Your task to perform on an android device: What's the weather? Image 0: 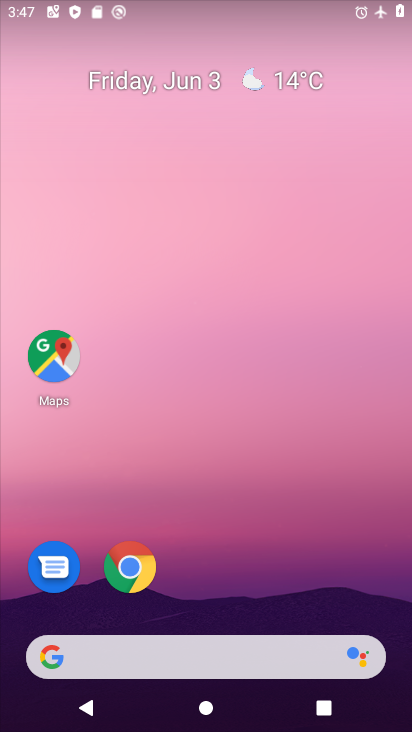
Step 0: drag from (285, 682) to (277, 247)
Your task to perform on an android device: What's the weather? Image 1: 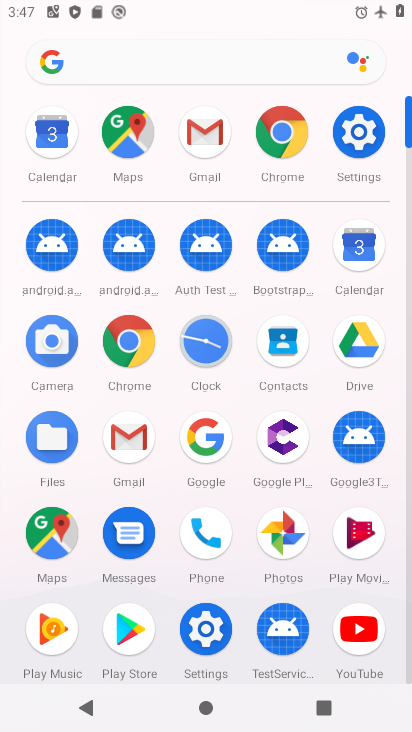
Step 1: click (162, 69)
Your task to perform on an android device: What's the weather? Image 2: 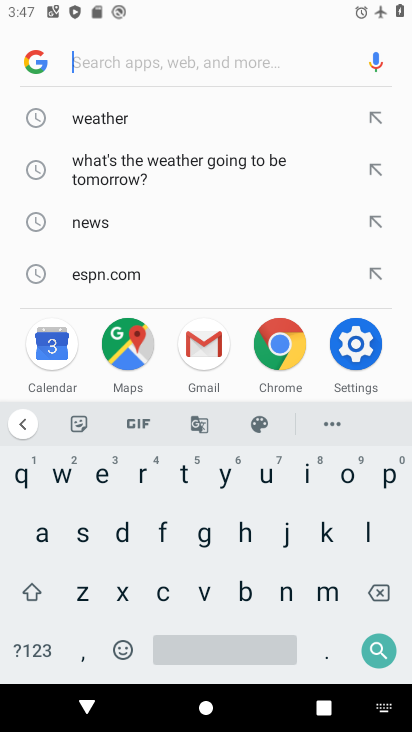
Step 2: click (132, 126)
Your task to perform on an android device: What's the weather? Image 3: 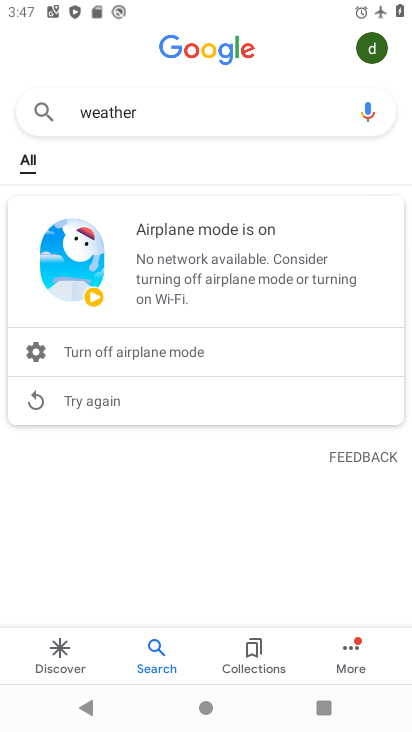
Step 3: press home button
Your task to perform on an android device: What's the weather? Image 4: 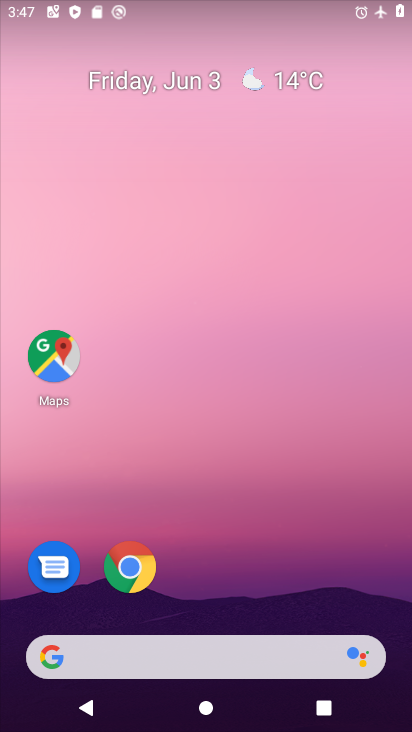
Step 4: drag from (252, 671) to (322, 106)
Your task to perform on an android device: What's the weather? Image 5: 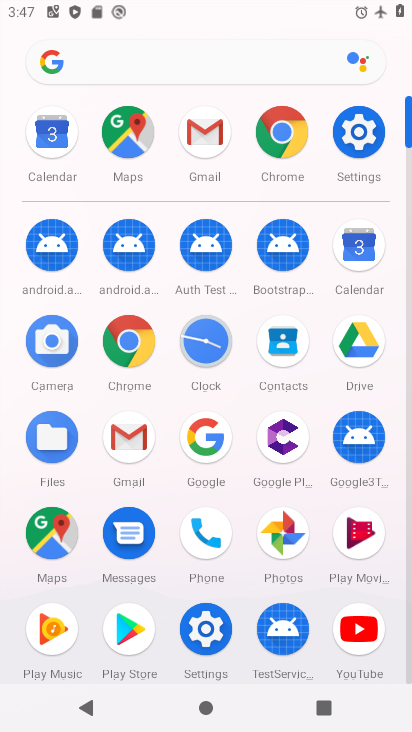
Step 5: click (358, 135)
Your task to perform on an android device: What's the weather? Image 6: 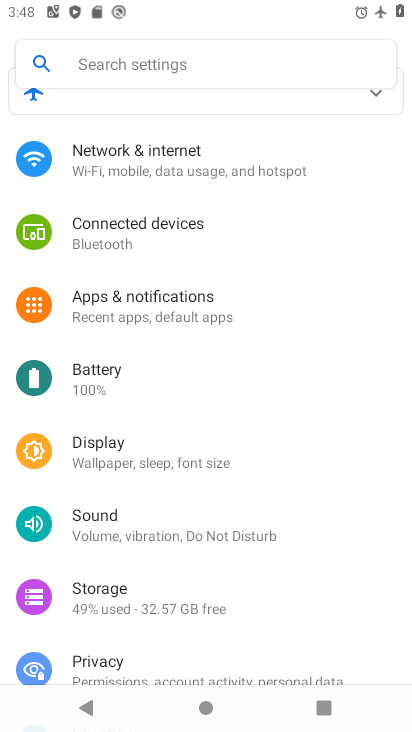
Step 6: click (378, 94)
Your task to perform on an android device: What's the weather? Image 7: 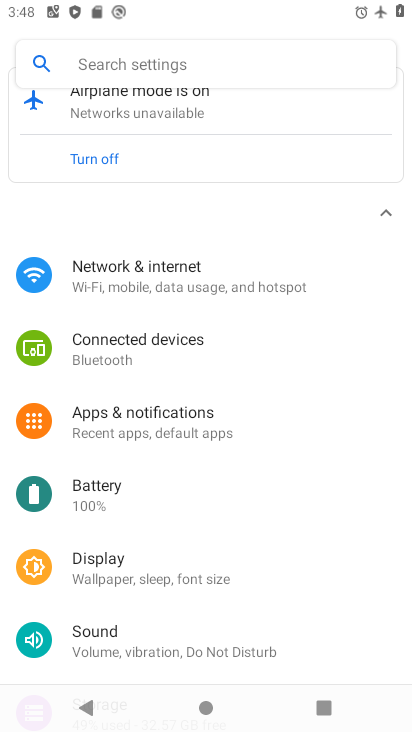
Step 7: click (78, 160)
Your task to perform on an android device: What's the weather? Image 8: 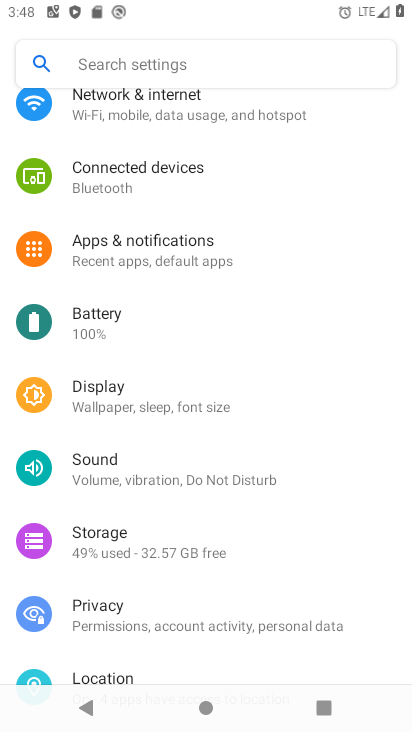
Step 8: press home button
Your task to perform on an android device: What's the weather? Image 9: 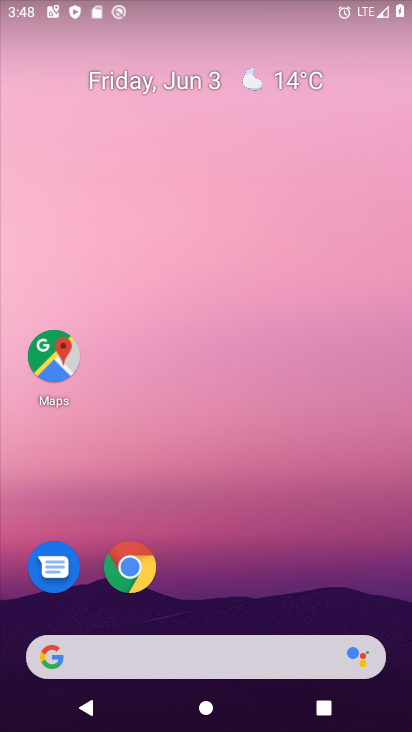
Step 9: click (145, 655)
Your task to perform on an android device: What's the weather? Image 10: 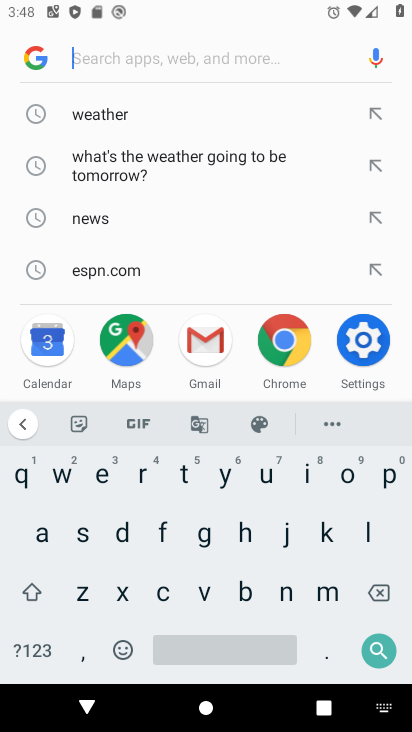
Step 10: click (129, 121)
Your task to perform on an android device: What's the weather? Image 11: 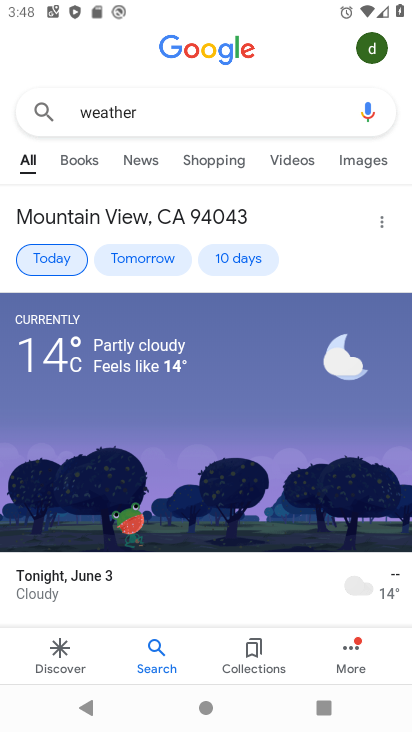
Step 11: task complete